Your task to perform on an android device: turn on data saver in the chrome app Image 0: 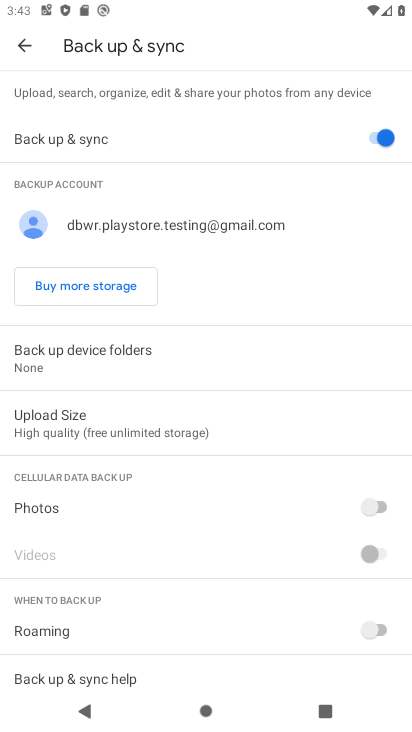
Step 0: press home button
Your task to perform on an android device: turn on data saver in the chrome app Image 1: 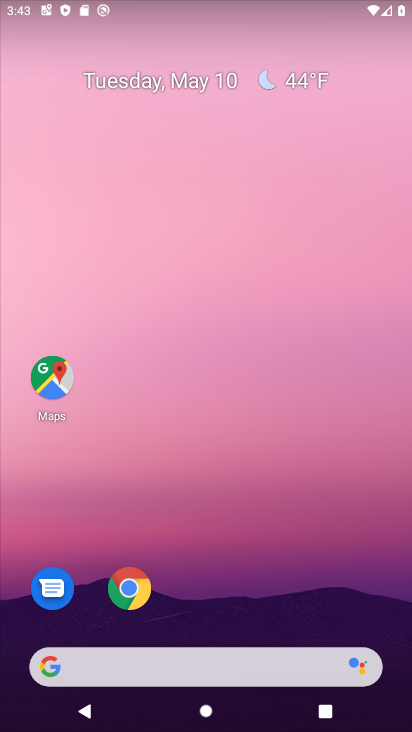
Step 1: click (139, 589)
Your task to perform on an android device: turn on data saver in the chrome app Image 2: 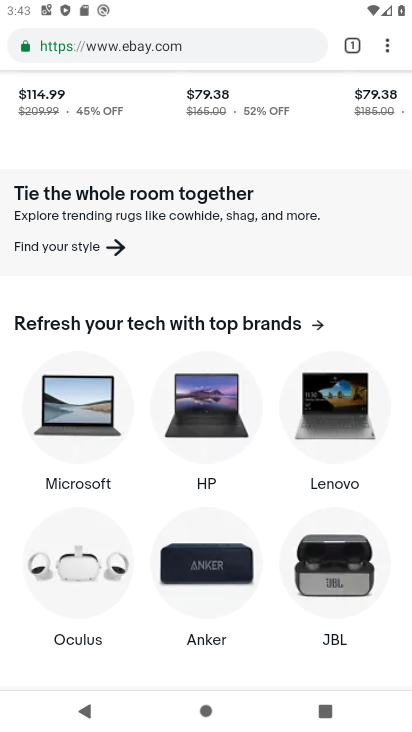
Step 2: click (387, 48)
Your task to perform on an android device: turn on data saver in the chrome app Image 3: 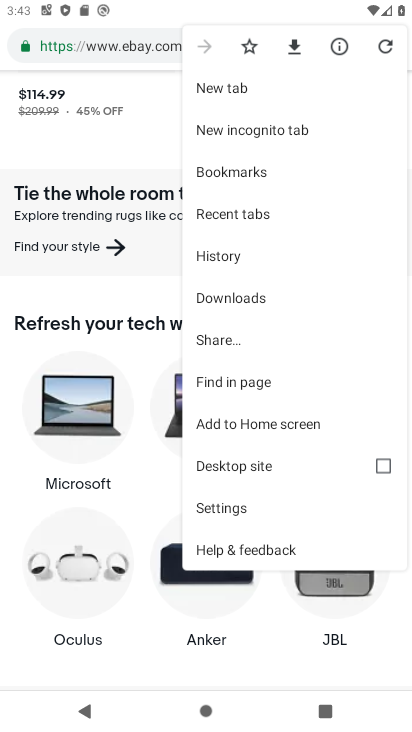
Step 3: click (241, 504)
Your task to perform on an android device: turn on data saver in the chrome app Image 4: 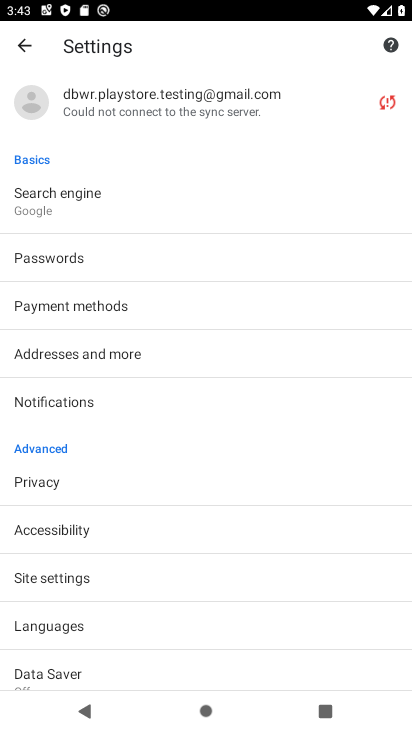
Step 4: drag from (174, 641) to (183, 478)
Your task to perform on an android device: turn on data saver in the chrome app Image 5: 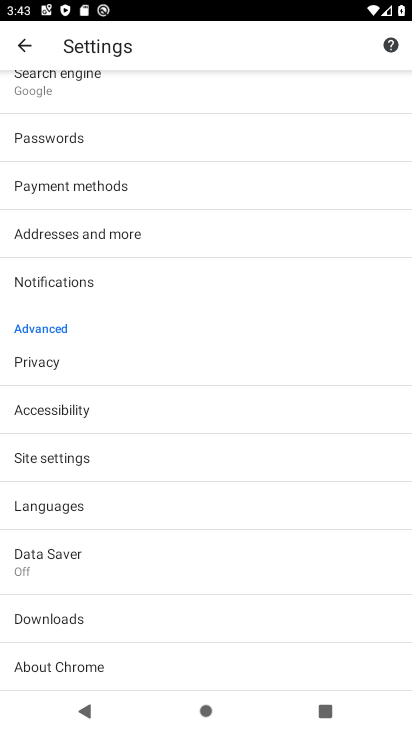
Step 5: click (64, 563)
Your task to perform on an android device: turn on data saver in the chrome app Image 6: 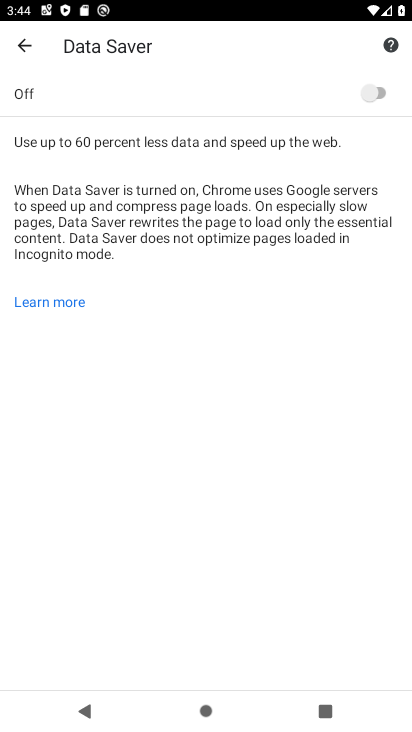
Step 6: click (366, 89)
Your task to perform on an android device: turn on data saver in the chrome app Image 7: 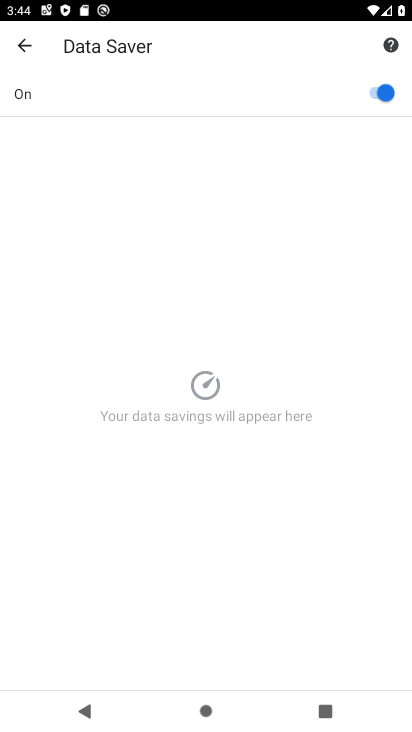
Step 7: task complete